Your task to perform on an android device: See recent photos Image 0: 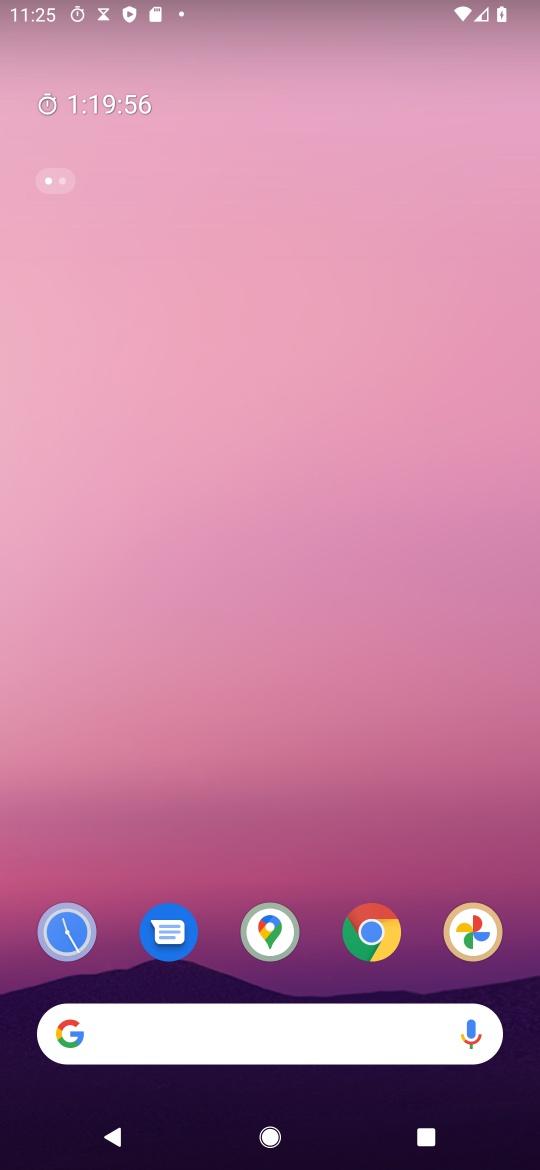
Step 0: click (482, 937)
Your task to perform on an android device: See recent photos Image 1: 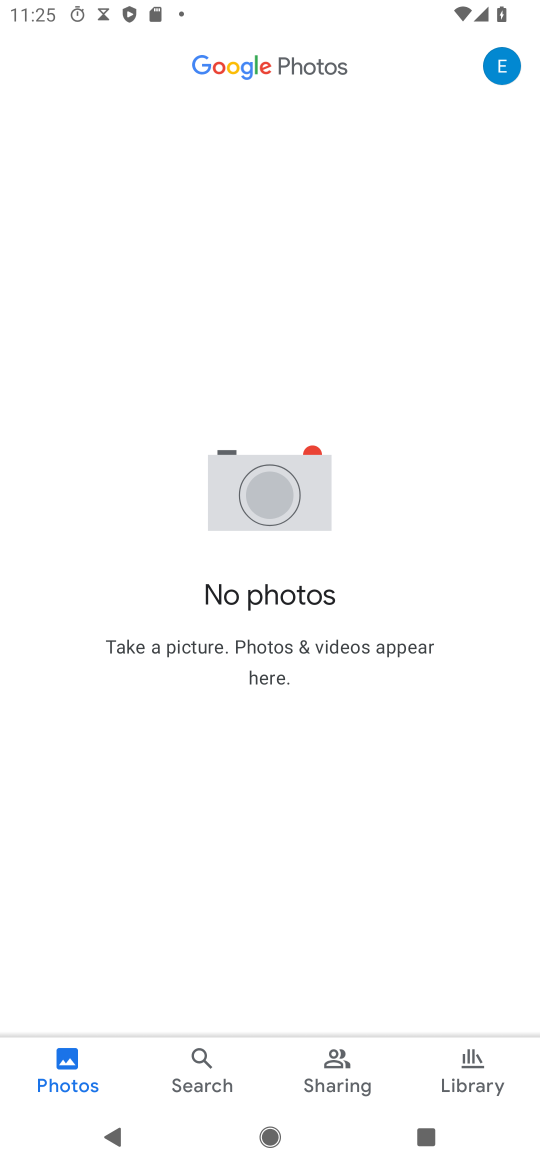
Step 1: task complete